Your task to perform on an android device: Go to location settings Image 0: 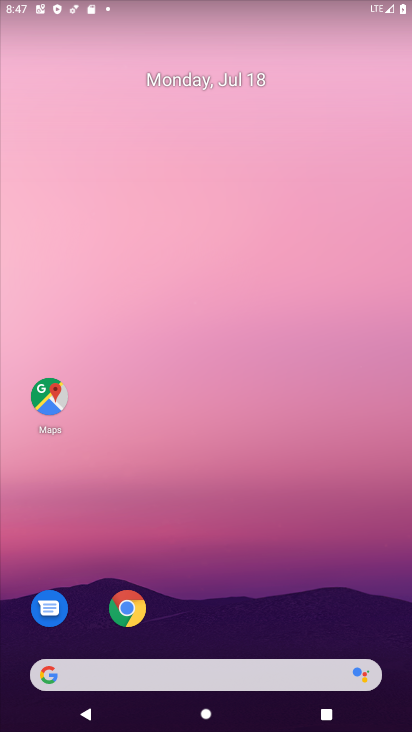
Step 0: drag from (50, 674) to (203, 321)
Your task to perform on an android device: Go to location settings Image 1: 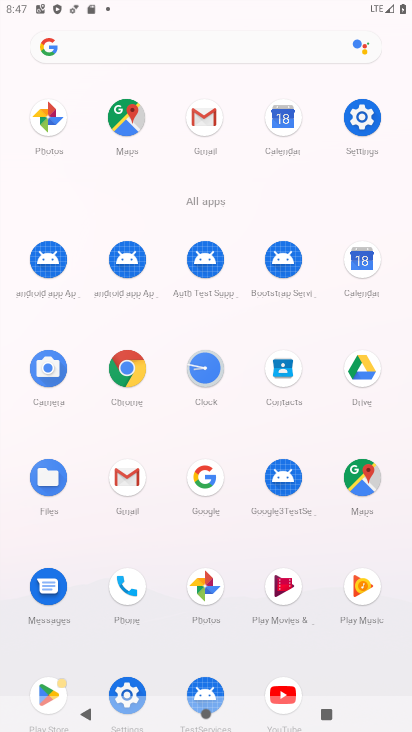
Step 1: click (121, 688)
Your task to perform on an android device: Go to location settings Image 2: 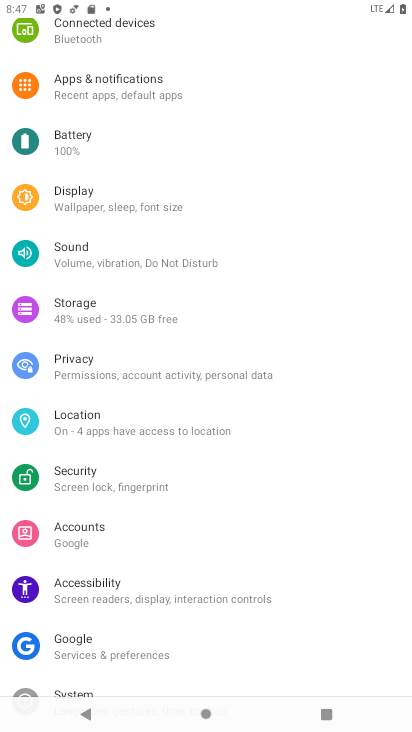
Step 2: click (144, 430)
Your task to perform on an android device: Go to location settings Image 3: 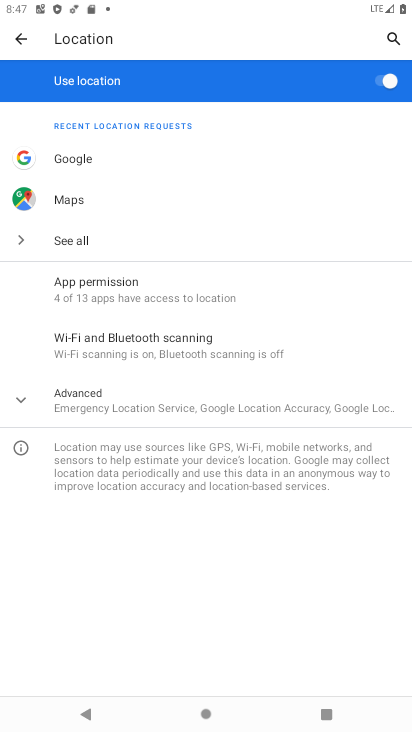
Step 3: task complete